Your task to perform on an android device: open sync settings in chrome Image 0: 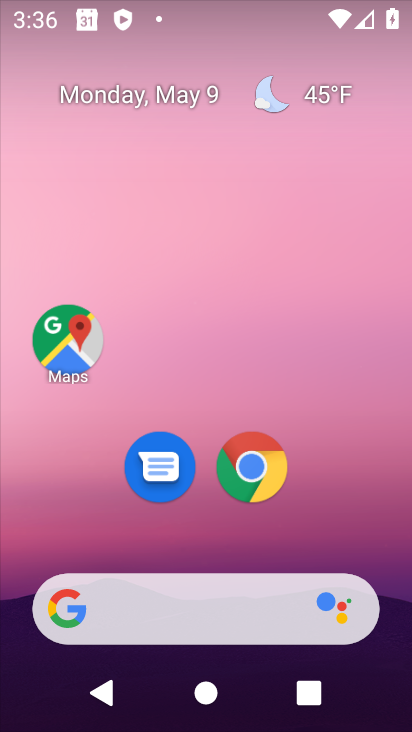
Step 0: click (263, 475)
Your task to perform on an android device: open sync settings in chrome Image 1: 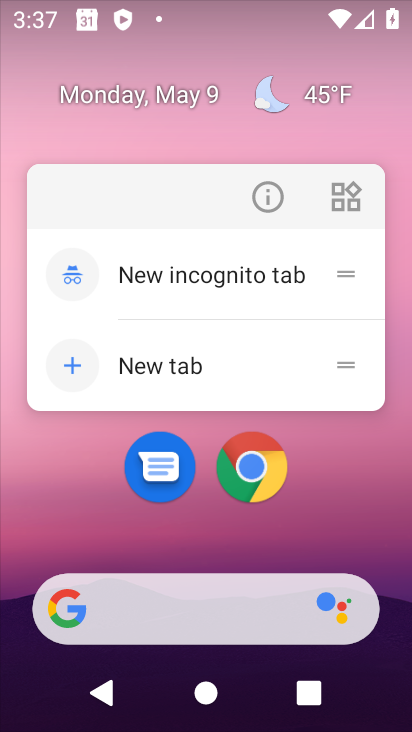
Step 1: click (261, 493)
Your task to perform on an android device: open sync settings in chrome Image 2: 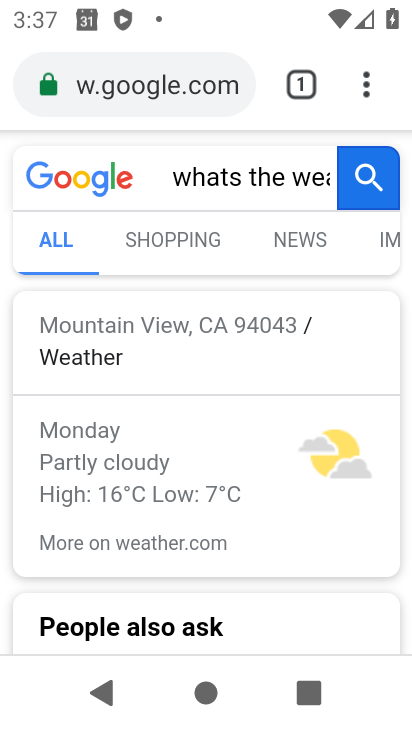
Step 2: drag from (365, 81) to (119, 513)
Your task to perform on an android device: open sync settings in chrome Image 3: 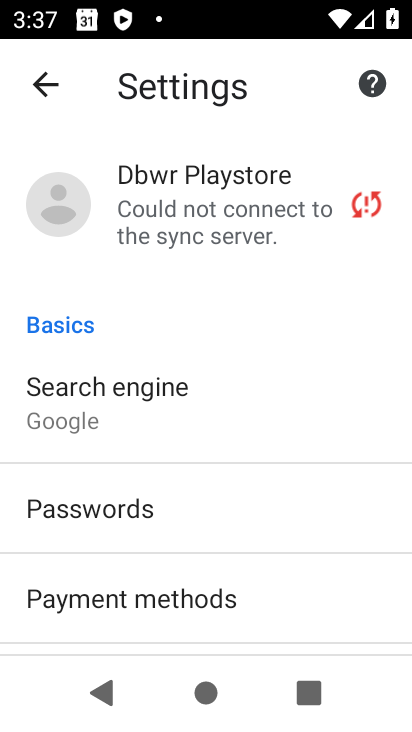
Step 3: drag from (240, 603) to (253, 183)
Your task to perform on an android device: open sync settings in chrome Image 4: 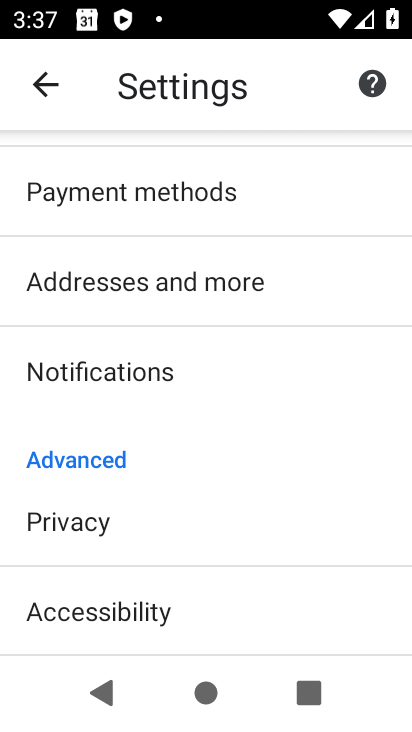
Step 4: drag from (155, 647) to (202, 237)
Your task to perform on an android device: open sync settings in chrome Image 5: 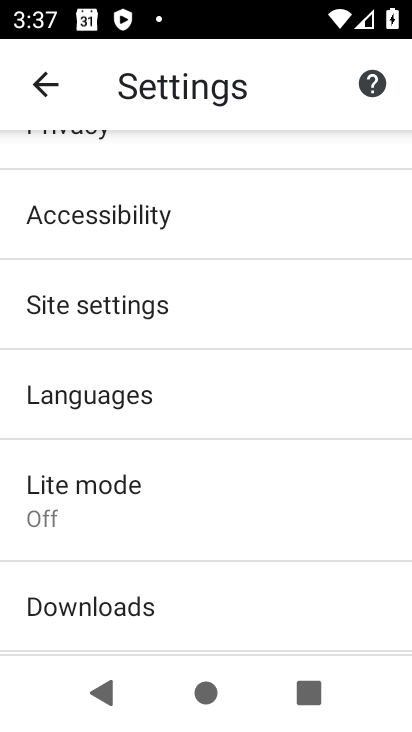
Step 5: click (150, 316)
Your task to perform on an android device: open sync settings in chrome Image 6: 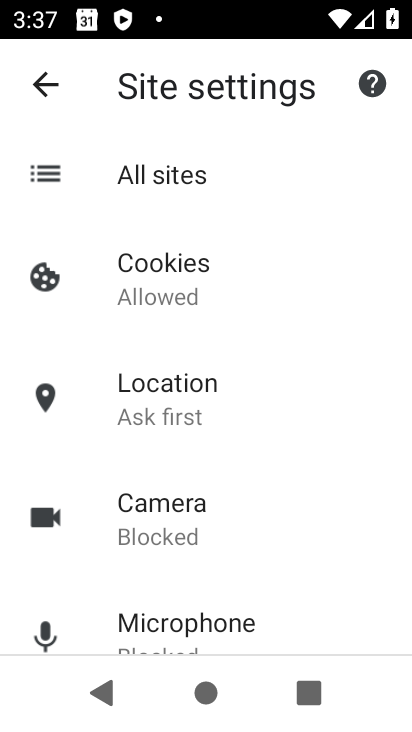
Step 6: drag from (232, 572) to (306, 247)
Your task to perform on an android device: open sync settings in chrome Image 7: 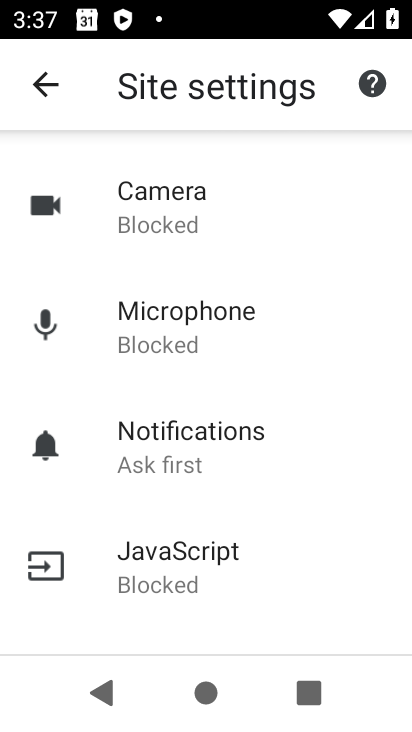
Step 7: drag from (165, 573) to (207, 281)
Your task to perform on an android device: open sync settings in chrome Image 8: 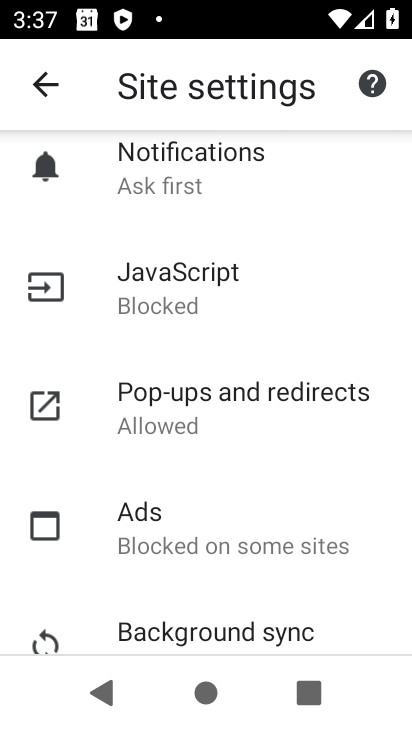
Step 8: click (200, 628)
Your task to perform on an android device: open sync settings in chrome Image 9: 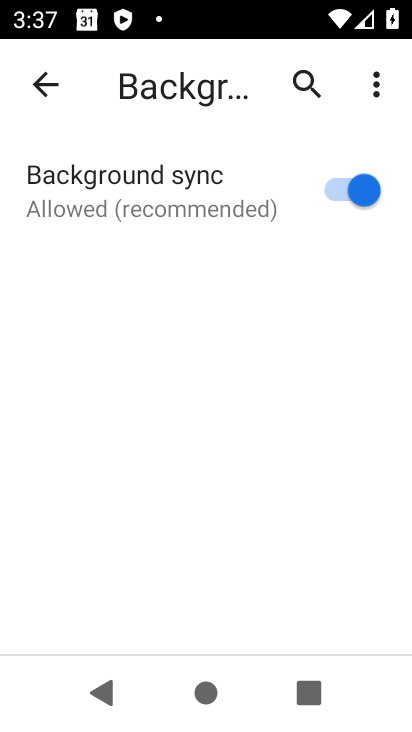
Step 9: task complete